Your task to perform on an android device: Is it going to rain tomorrow? Image 0: 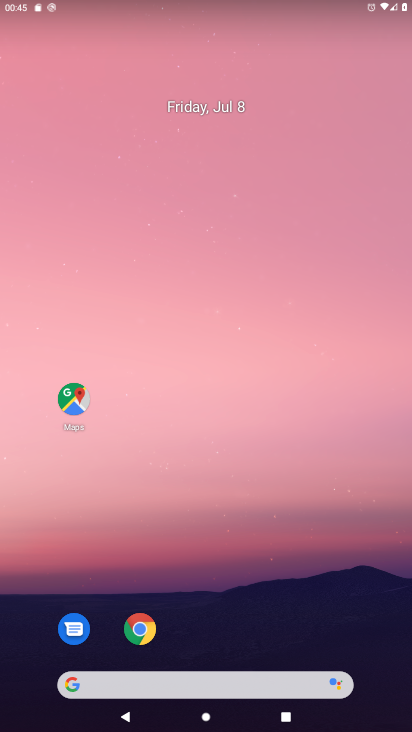
Step 0: click (191, 684)
Your task to perform on an android device: Is it going to rain tomorrow? Image 1: 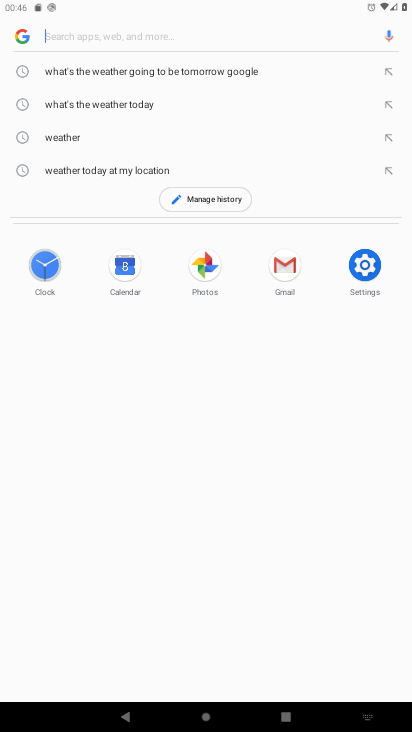
Step 1: type "is it going to rain tomorrow?"
Your task to perform on an android device: Is it going to rain tomorrow? Image 2: 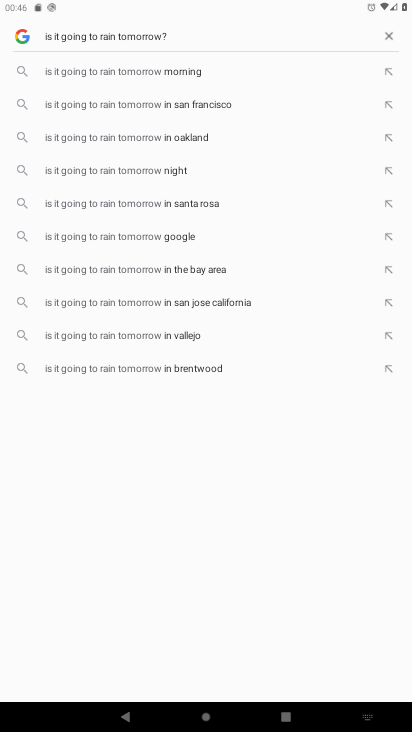
Step 2: click (166, 228)
Your task to perform on an android device: Is it going to rain tomorrow? Image 3: 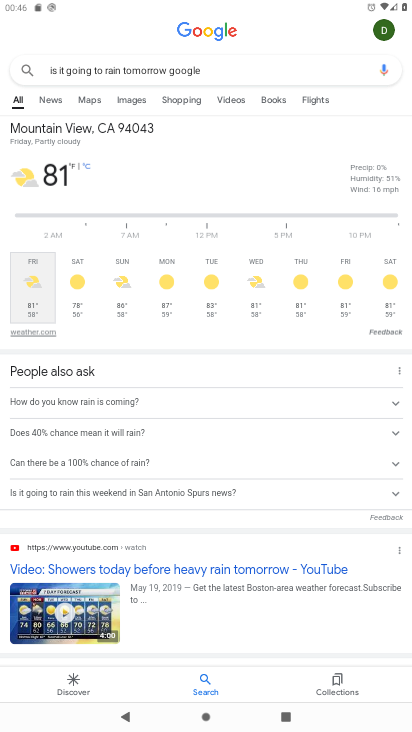
Step 3: task complete